Your task to perform on an android device: Open eBay Image 0: 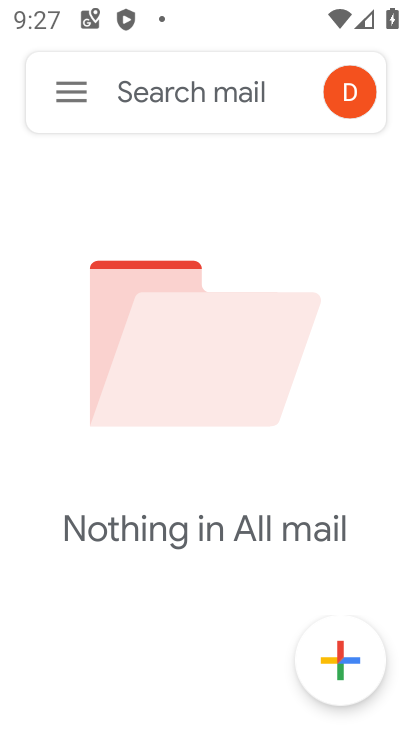
Step 0: press home button
Your task to perform on an android device: Open eBay Image 1: 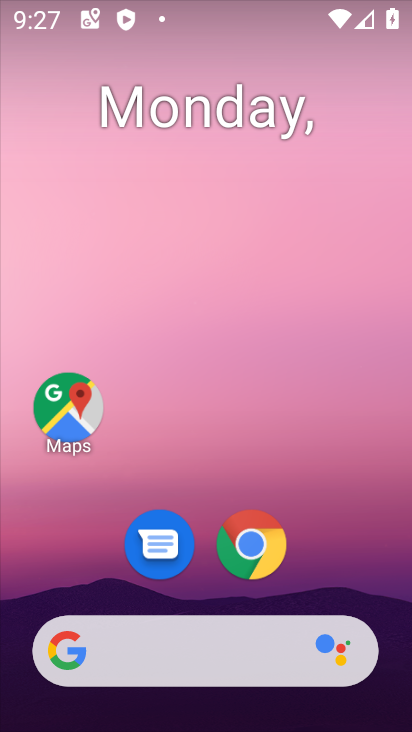
Step 1: click (259, 545)
Your task to perform on an android device: Open eBay Image 2: 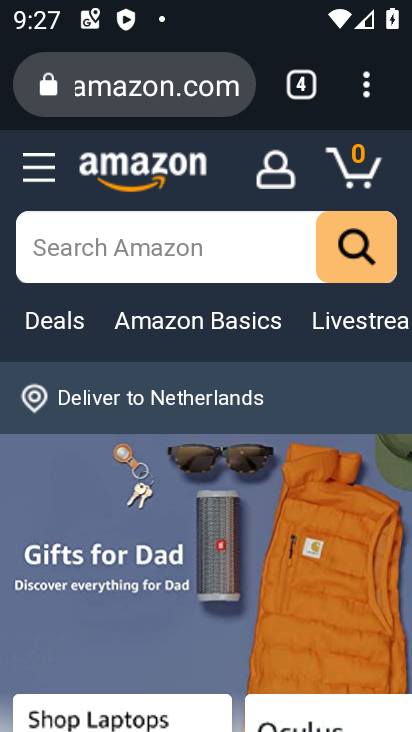
Step 2: click (373, 84)
Your task to perform on an android device: Open eBay Image 3: 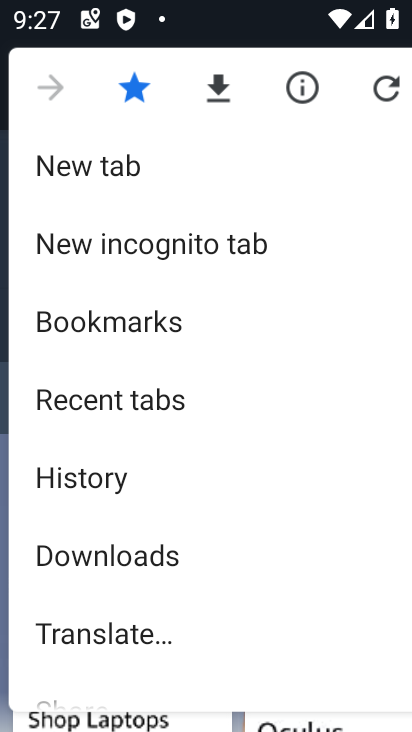
Step 3: click (100, 168)
Your task to perform on an android device: Open eBay Image 4: 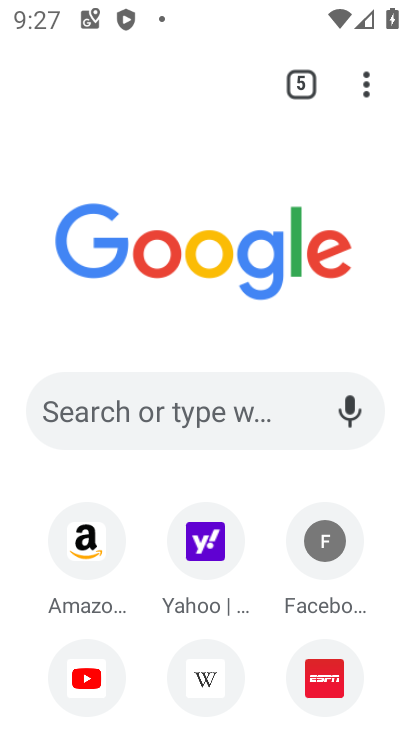
Step 4: click (196, 387)
Your task to perform on an android device: Open eBay Image 5: 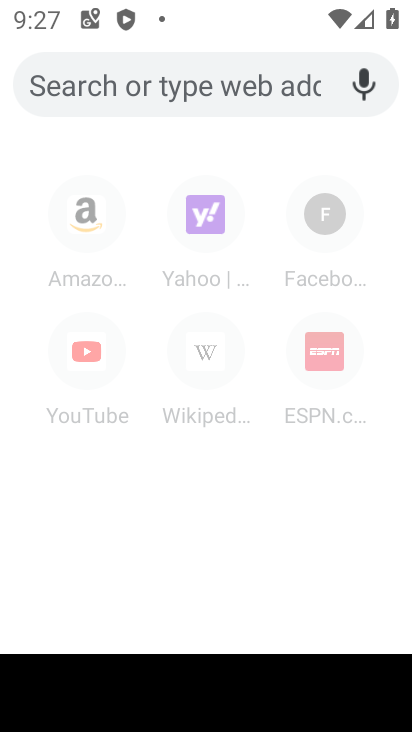
Step 5: type "ebay"
Your task to perform on an android device: Open eBay Image 6: 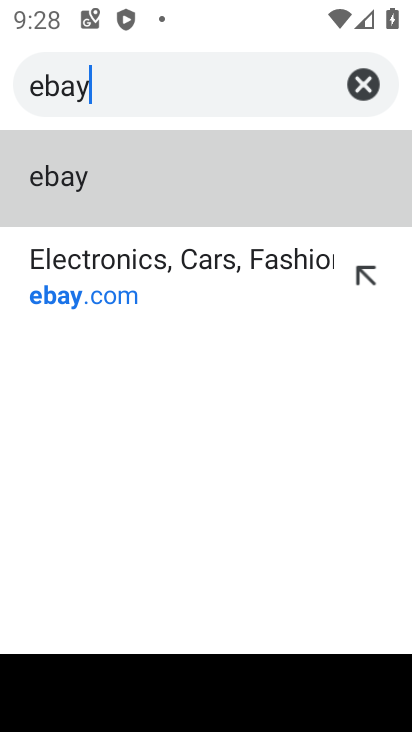
Step 6: click (66, 181)
Your task to perform on an android device: Open eBay Image 7: 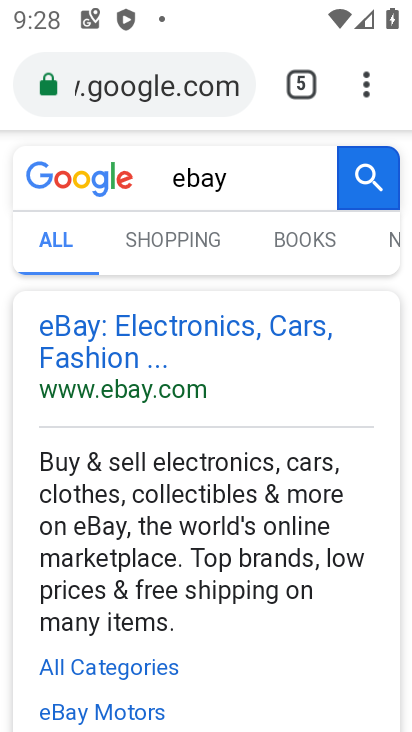
Step 7: task complete